Your task to perform on an android device: check battery use Image 0: 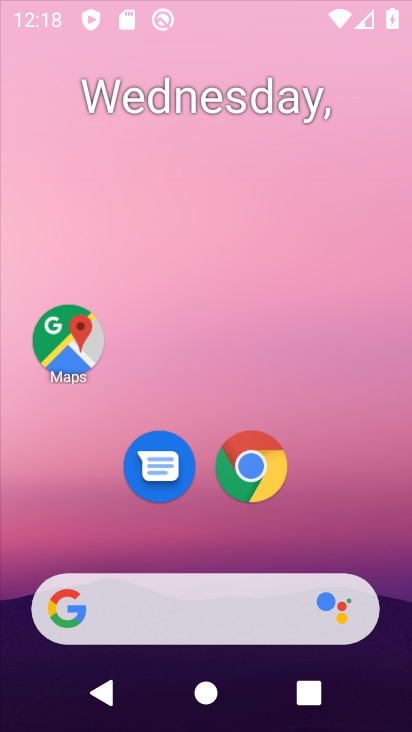
Step 0: click (67, 328)
Your task to perform on an android device: check battery use Image 1: 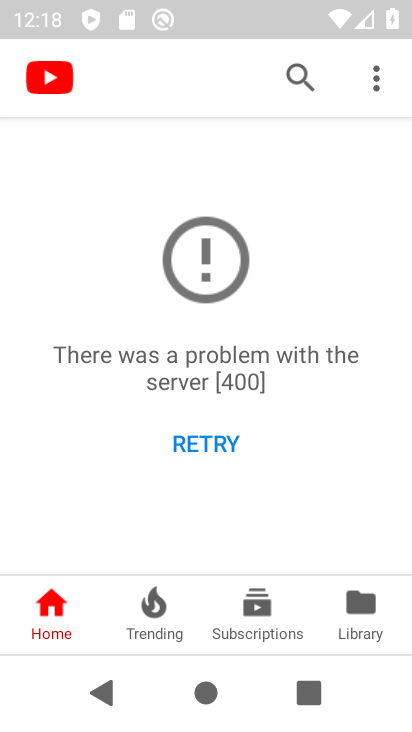
Step 1: press home button
Your task to perform on an android device: check battery use Image 2: 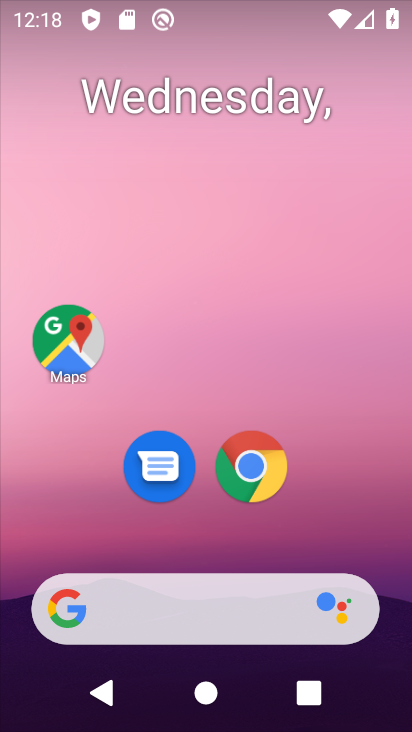
Step 2: drag from (374, 520) to (263, 78)
Your task to perform on an android device: check battery use Image 3: 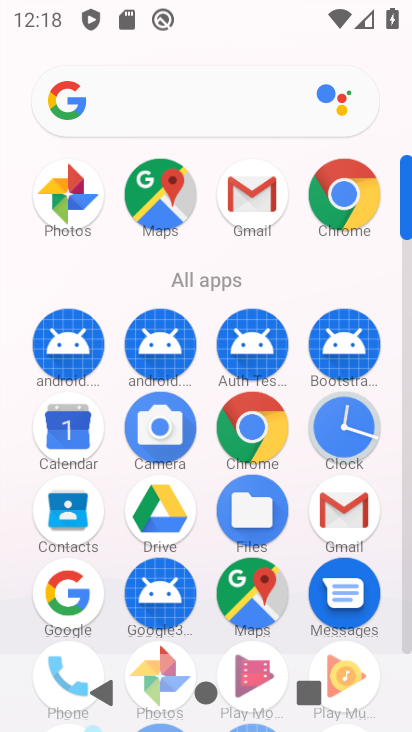
Step 3: click (403, 649)
Your task to perform on an android device: check battery use Image 4: 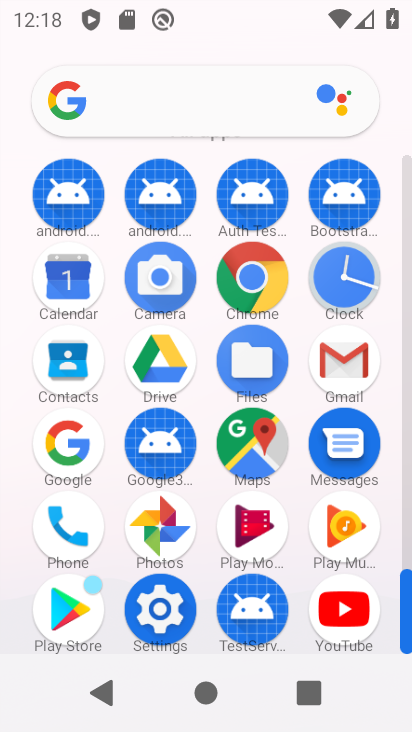
Step 4: click (171, 626)
Your task to perform on an android device: check battery use Image 5: 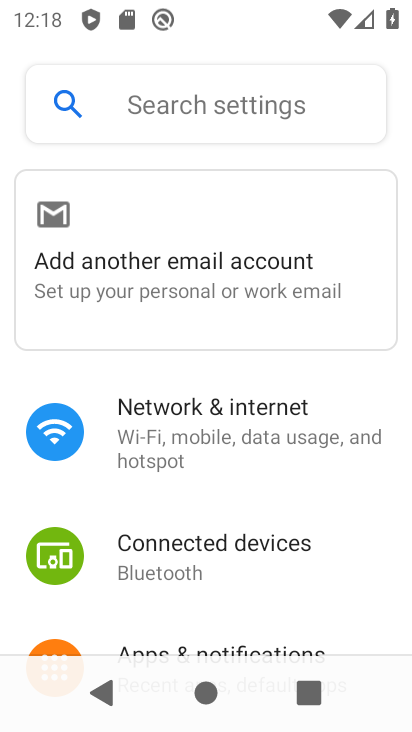
Step 5: drag from (327, 573) to (290, 233)
Your task to perform on an android device: check battery use Image 6: 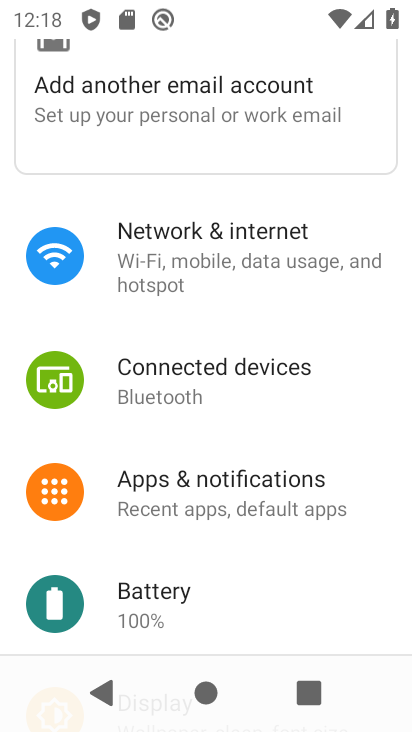
Step 6: click (276, 614)
Your task to perform on an android device: check battery use Image 7: 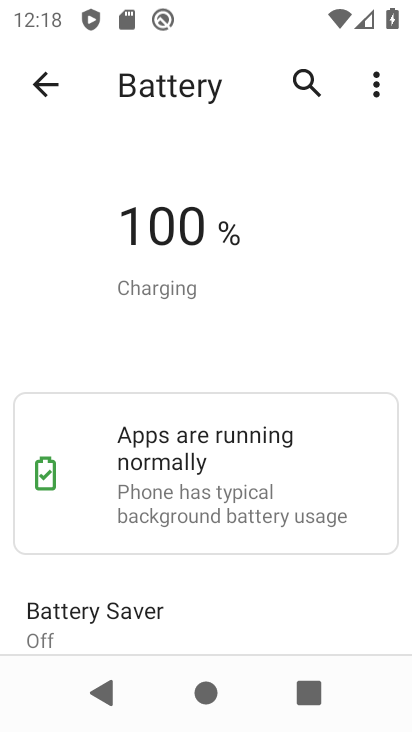
Step 7: drag from (276, 614) to (260, 451)
Your task to perform on an android device: check battery use Image 8: 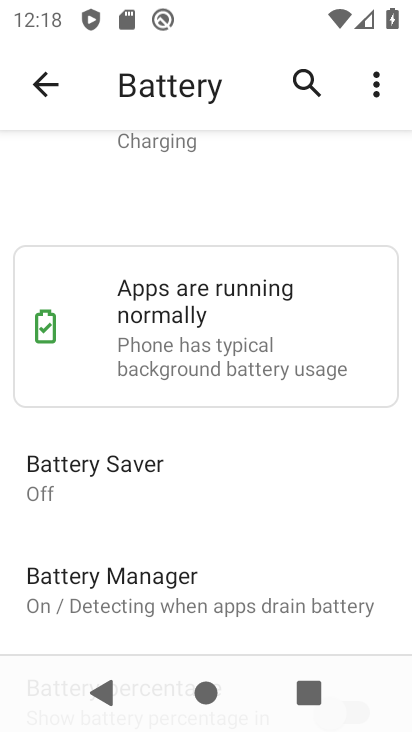
Step 8: click (389, 79)
Your task to perform on an android device: check battery use Image 9: 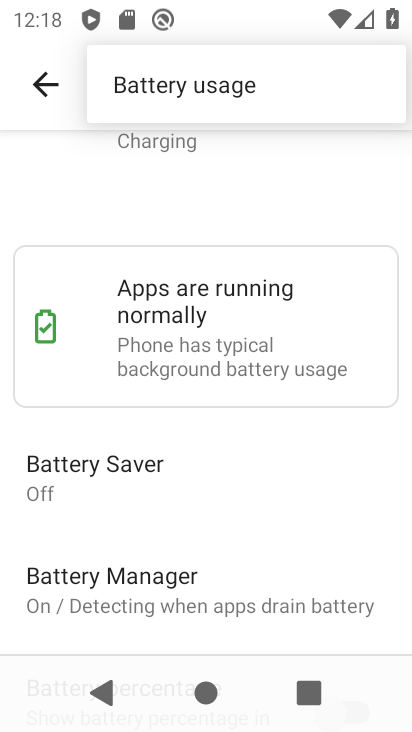
Step 9: click (326, 91)
Your task to perform on an android device: check battery use Image 10: 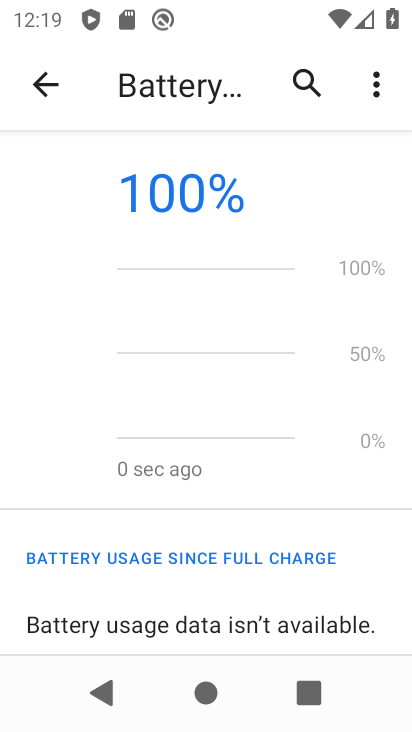
Step 10: task complete